Your task to perform on an android device: change your default location settings in chrome Image 0: 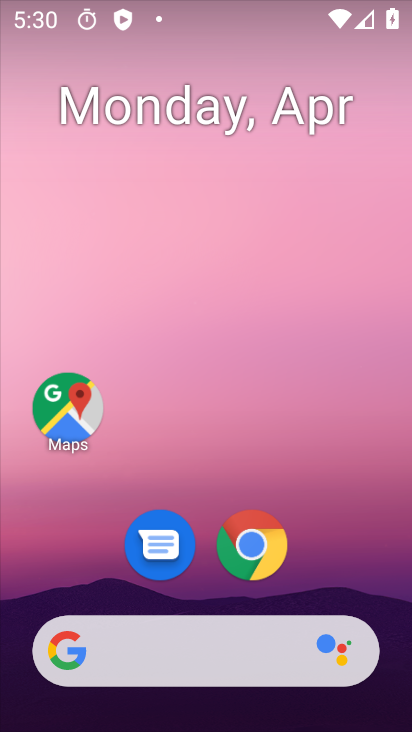
Step 0: drag from (344, 553) to (396, 158)
Your task to perform on an android device: change your default location settings in chrome Image 1: 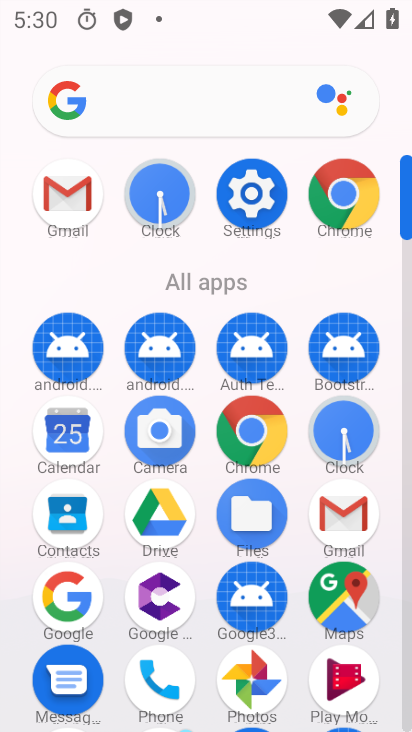
Step 1: click (252, 208)
Your task to perform on an android device: change your default location settings in chrome Image 2: 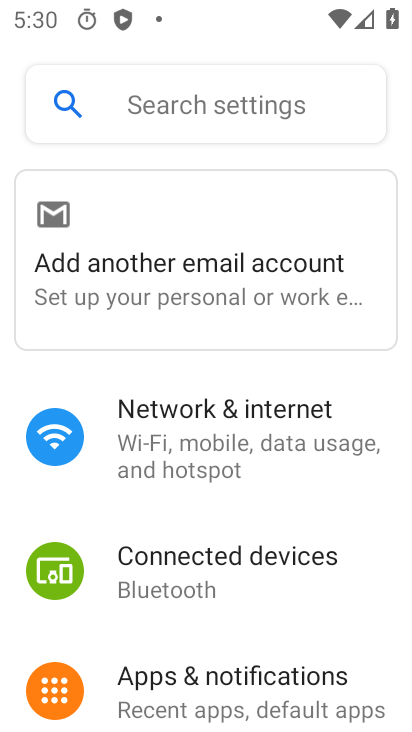
Step 2: drag from (385, 641) to (406, 295)
Your task to perform on an android device: change your default location settings in chrome Image 3: 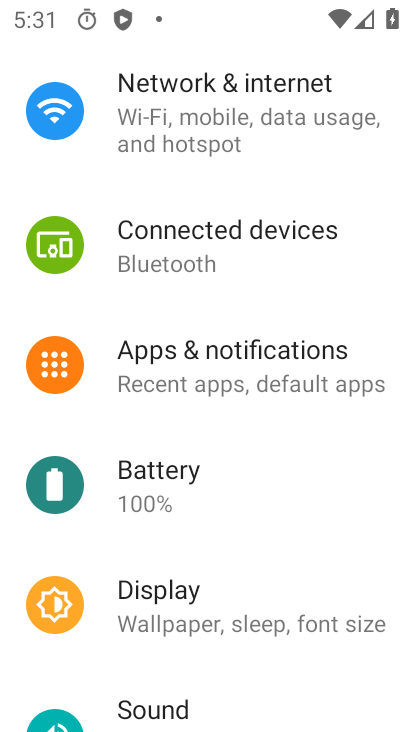
Step 3: drag from (332, 681) to (358, 364)
Your task to perform on an android device: change your default location settings in chrome Image 4: 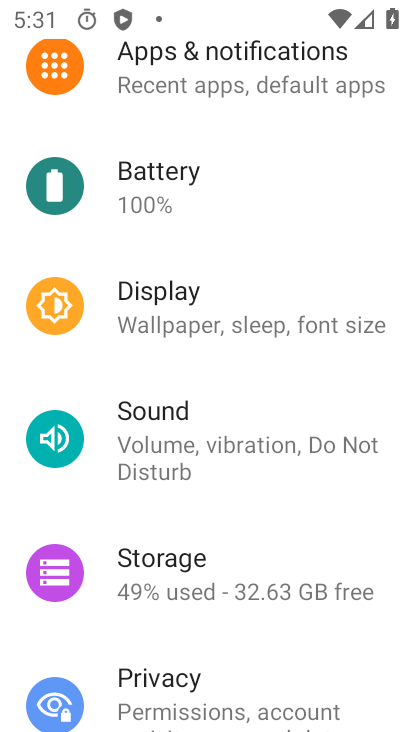
Step 4: press home button
Your task to perform on an android device: change your default location settings in chrome Image 5: 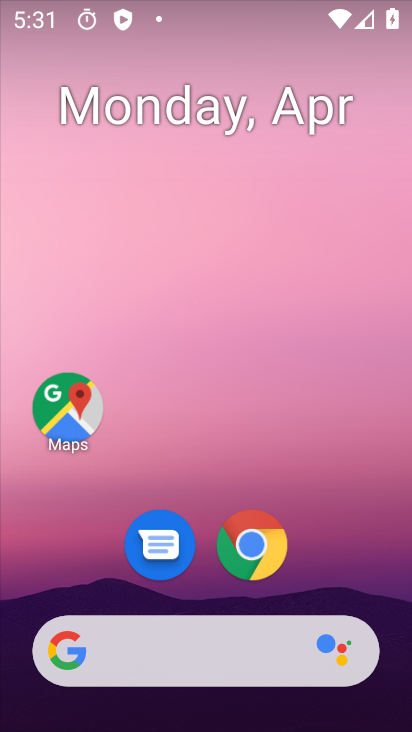
Step 5: drag from (325, 529) to (363, 153)
Your task to perform on an android device: change your default location settings in chrome Image 6: 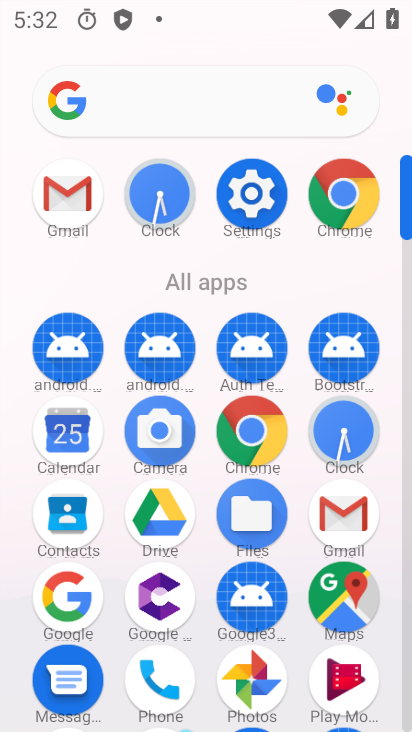
Step 6: click (261, 437)
Your task to perform on an android device: change your default location settings in chrome Image 7: 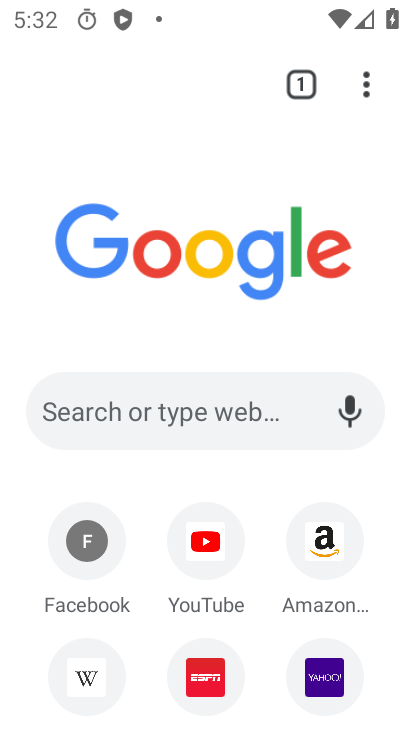
Step 7: drag from (360, 80) to (197, 589)
Your task to perform on an android device: change your default location settings in chrome Image 8: 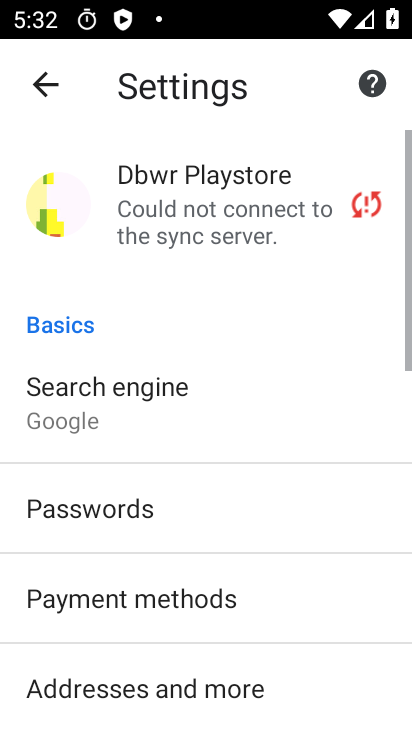
Step 8: drag from (267, 673) to (344, 282)
Your task to perform on an android device: change your default location settings in chrome Image 9: 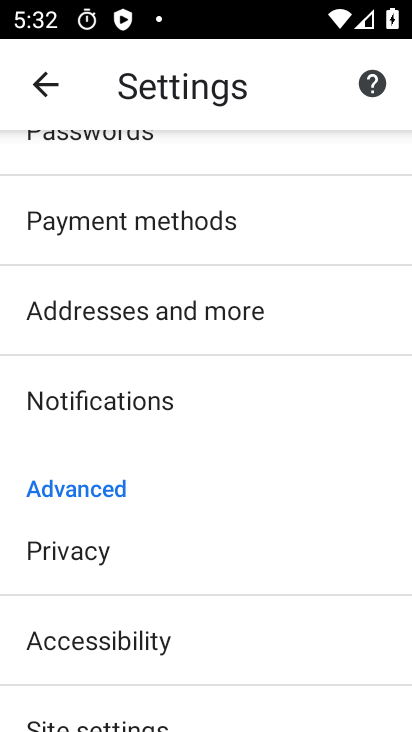
Step 9: drag from (269, 628) to (335, 344)
Your task to perform on an android device: change your default location settings in chrome Image 10: 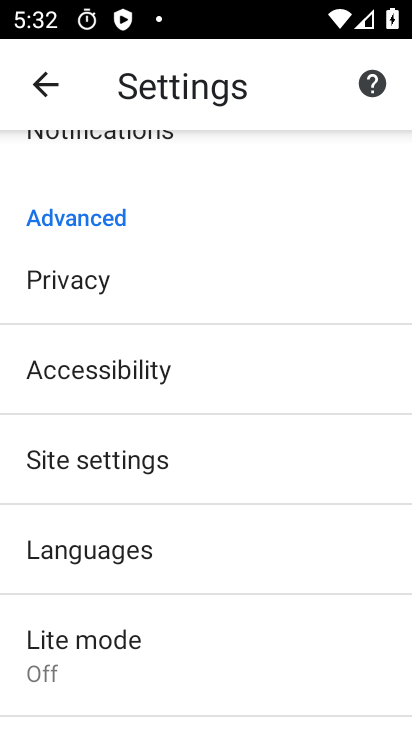
Step 10: click (114, 463)
Your task to perform on an android device: change your default location settings in chrome Image 11: 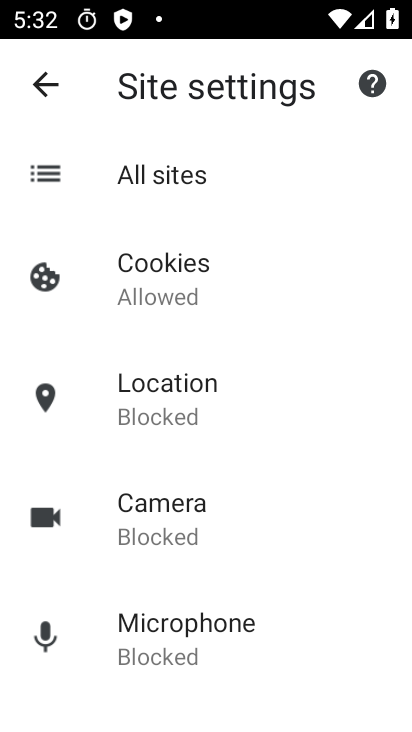
Step 11: click (175, 397)
Your task to perform on an android device: change your default location settings in chrome Image 12: 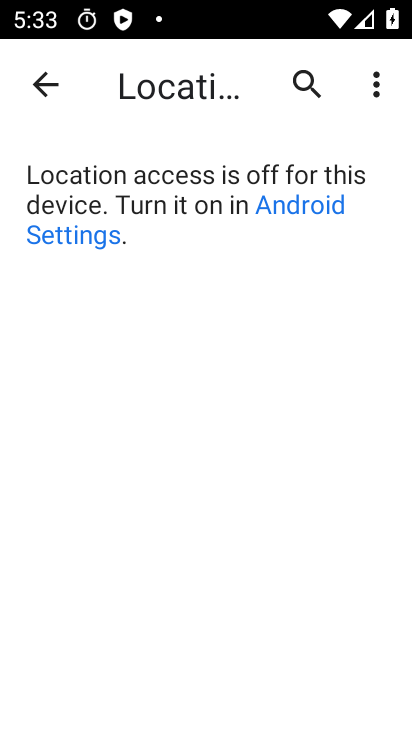
Step 12: task complete